Your task to perform on an android device: Go to Yahoo.com Image 0: 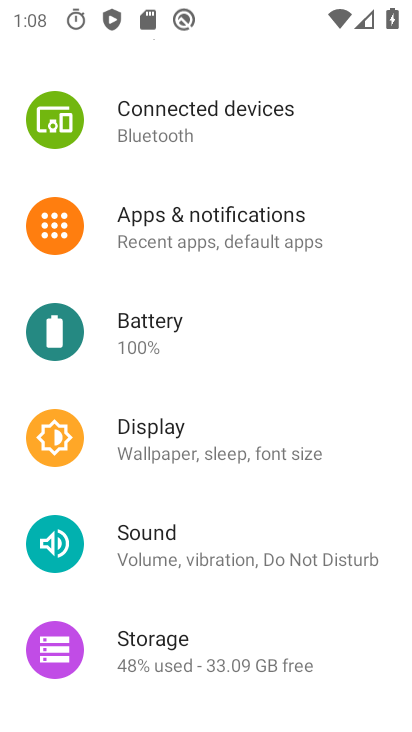
Step 0: press back button
Your task to perform on an android device: Go to Yahoo.com Image 1: 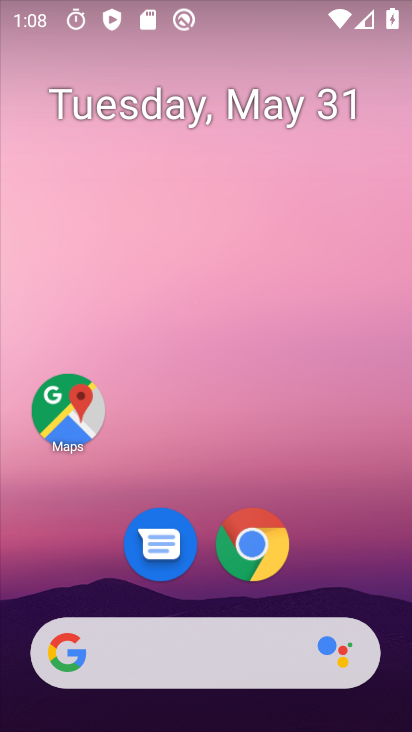
Step 1: click (239, 548)
Your task to perform on an android device: Go to Yahoo.com Image 2: 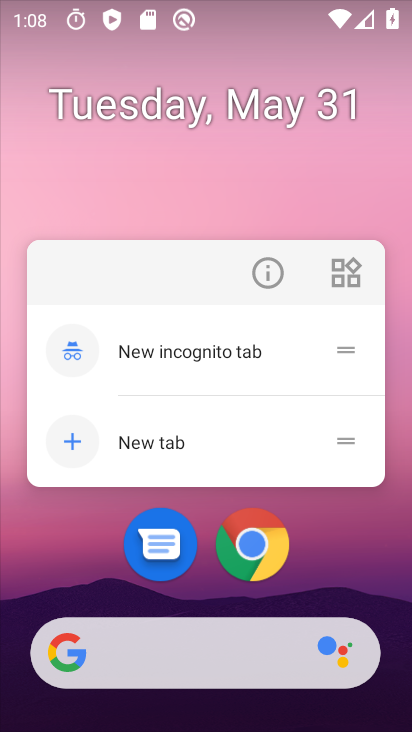
Step 2: click (264, 536)
Your task to perform on an android device: Go to Yahoo.com Image 3: 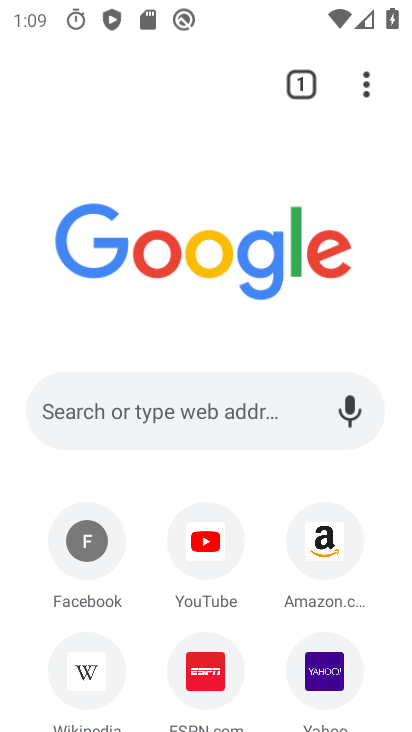
Step 3: click (330, 686)
Your task to perform on an android device: Go to Yahoo.com Image 4: 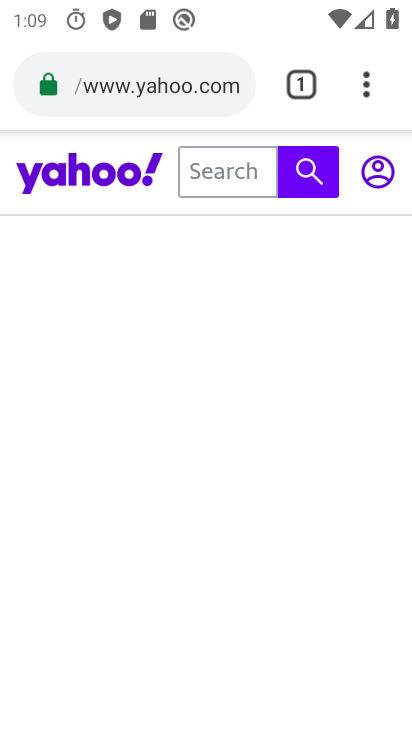
Step 4: task complete